Your task to perform on an android device: Search for the best rated desk chair on Article.com Image 0: 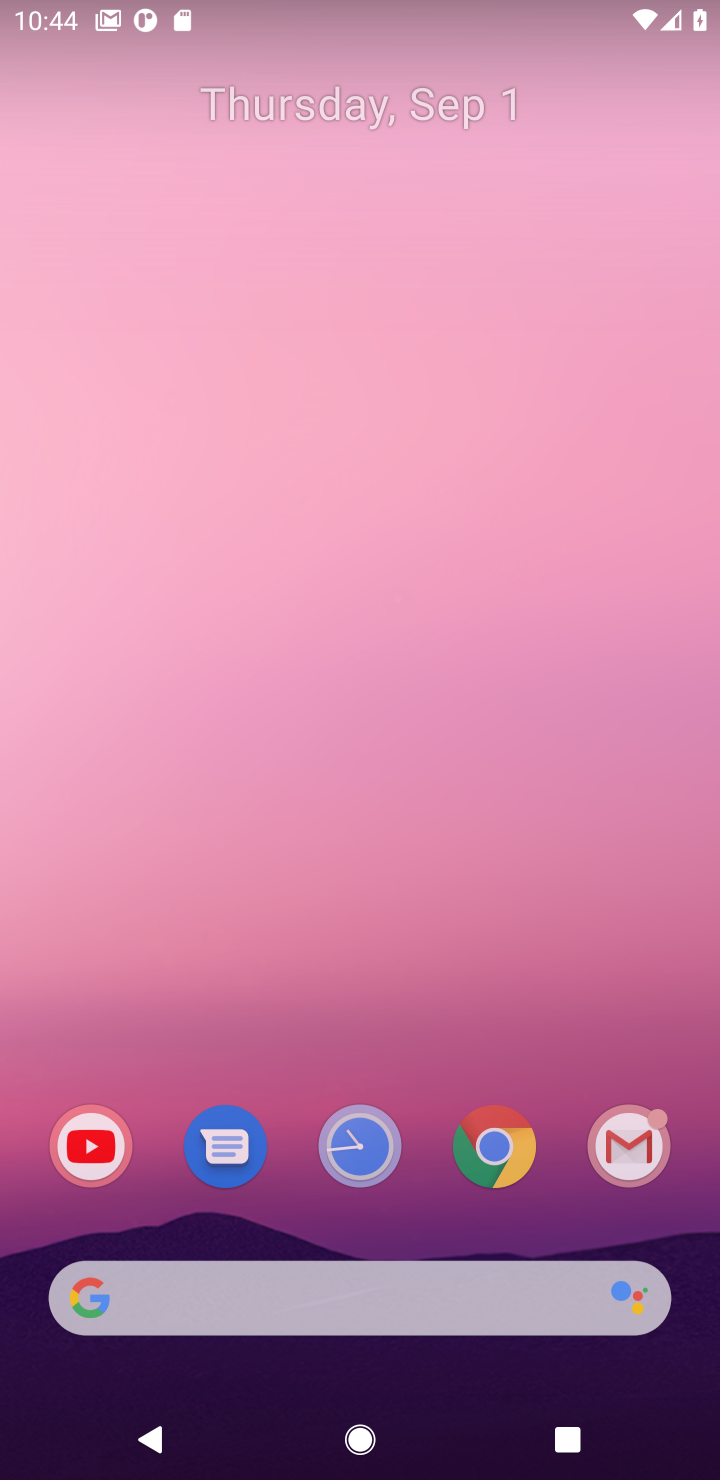
Step 0: press home button
Your task to perform on an android device: Search for the best rated desk chair on Article.com Image 1: 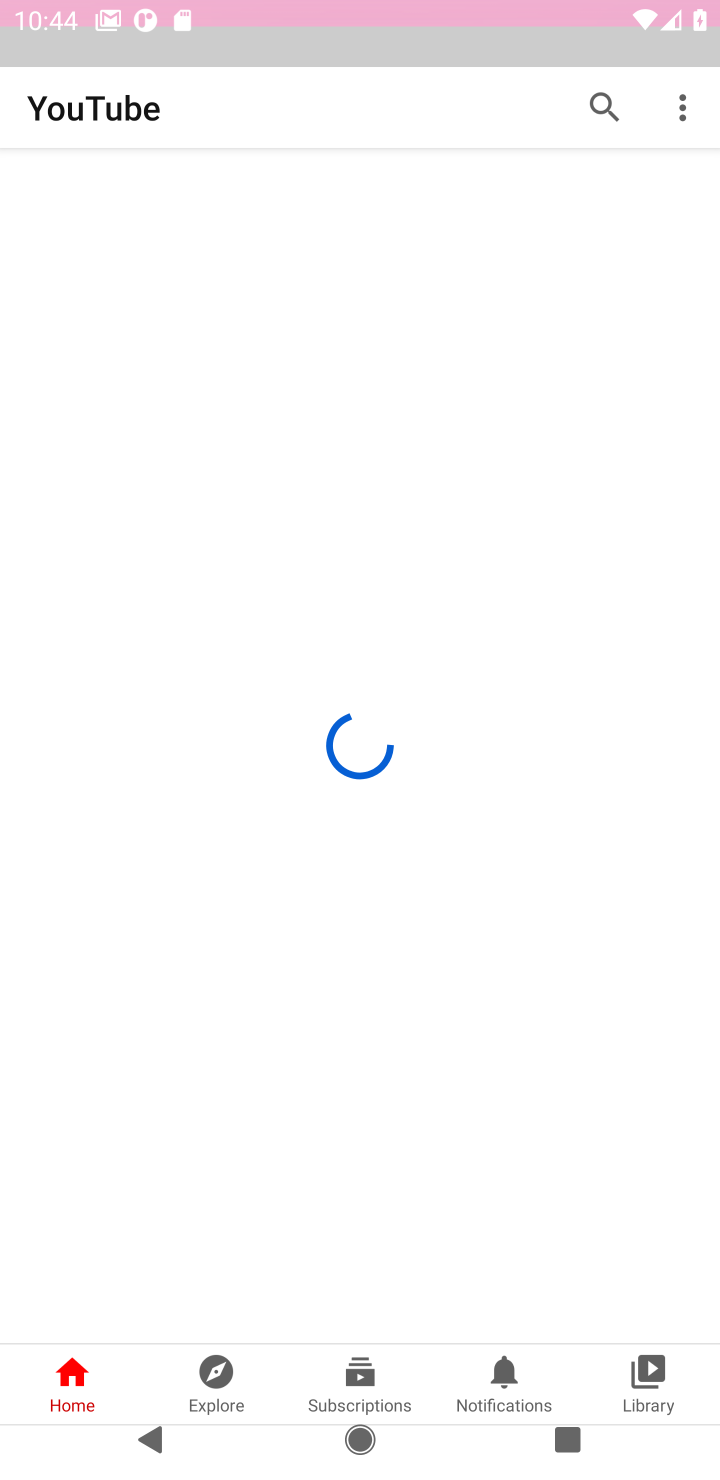
Step 1: drag from (437, 1205) to (501, 148)
Your task to perform on an android device: Search for the best rated desk chair on Article.com Image 2: 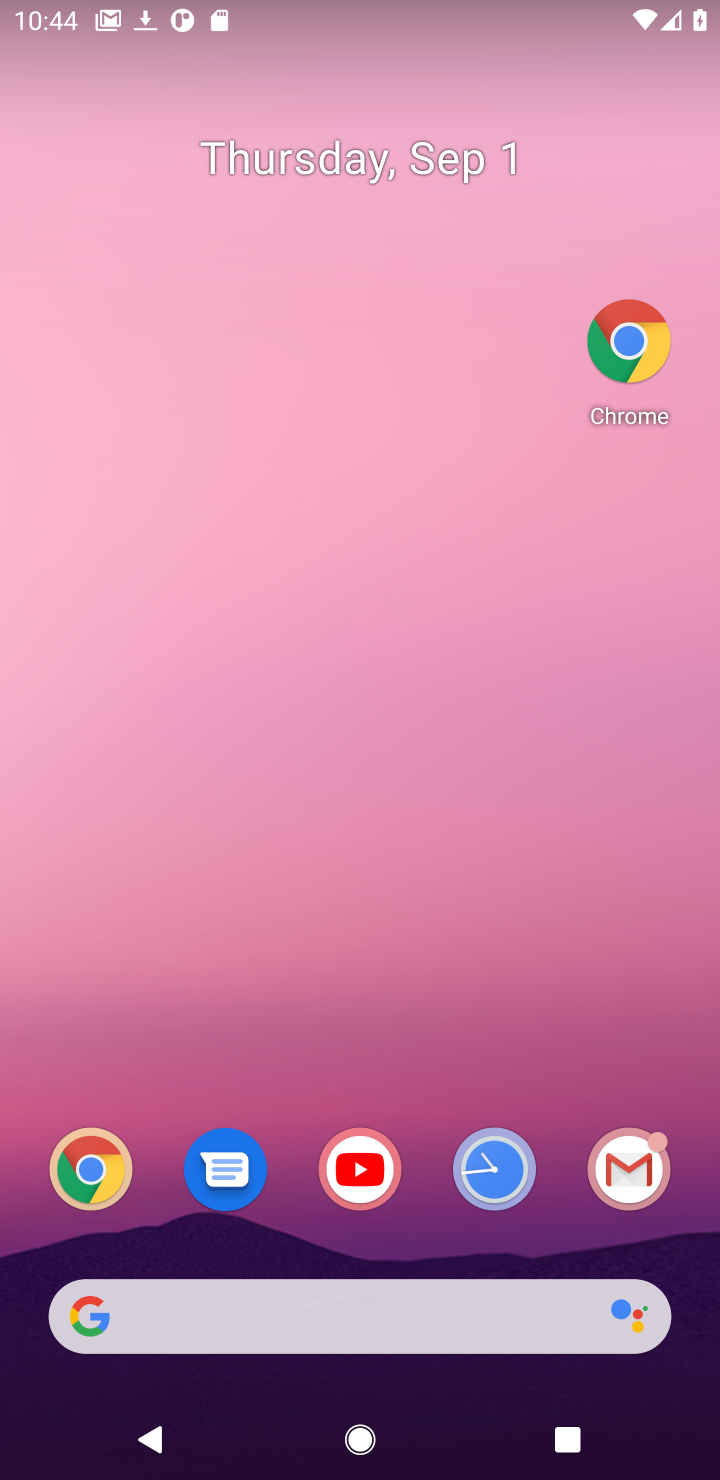
Step 2: drag from (419, 1197) to (482, 14)
Your task to perform on an android device: Search for the best rated desk chair on Article.com Image 3: 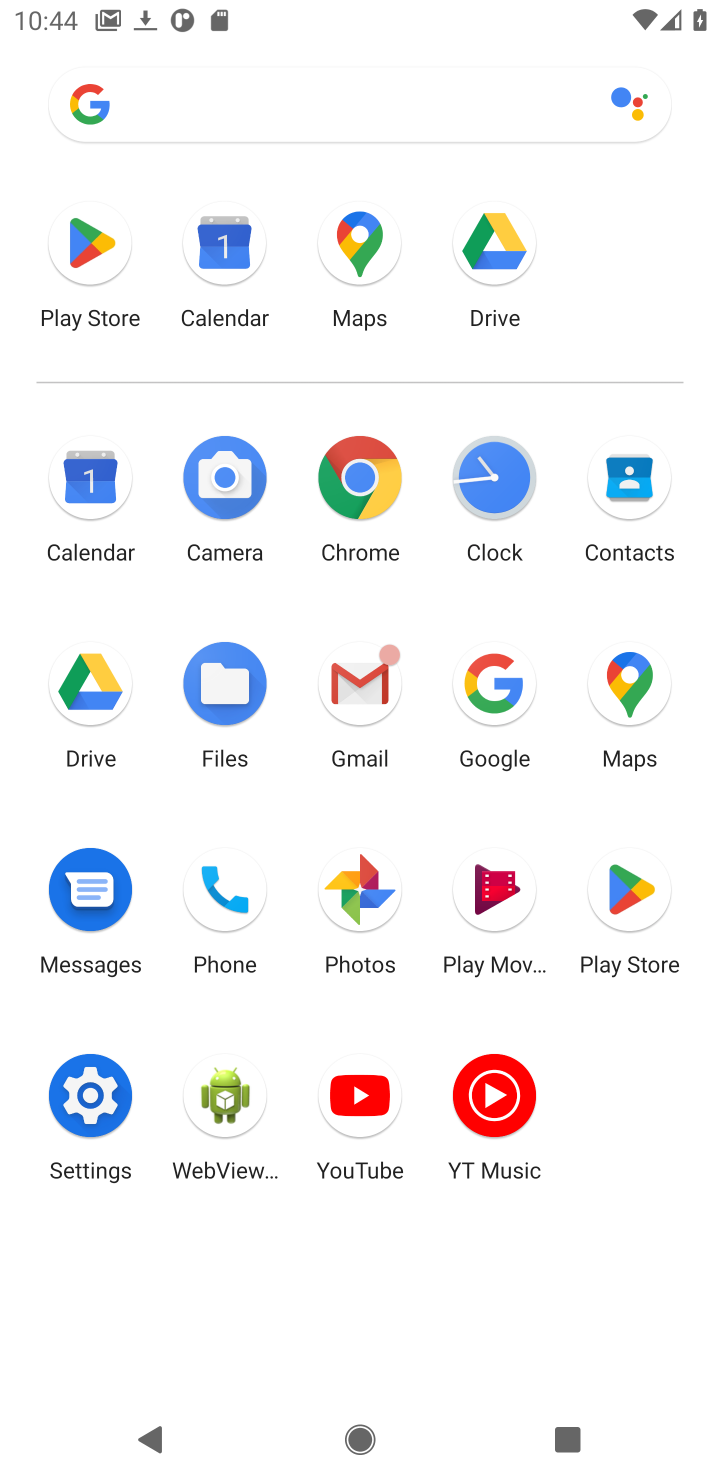
Step 3: click (354, 456)
Your task to perform on an android device: Search for the best rated desk chair on Article.com Image 4: 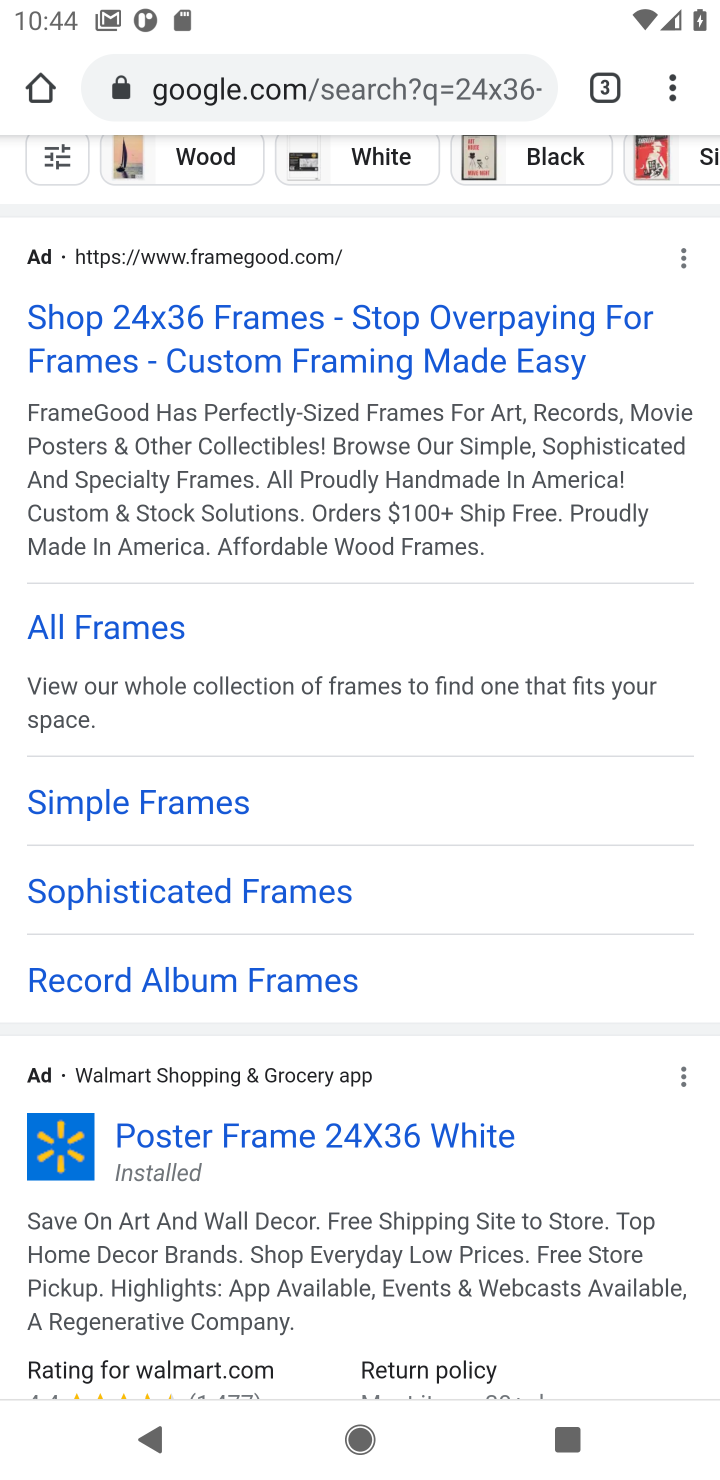
Step 4: click (277, 75)
Your task to perform on an android device: Search for the best rated desk chair on Article.com Image 5: 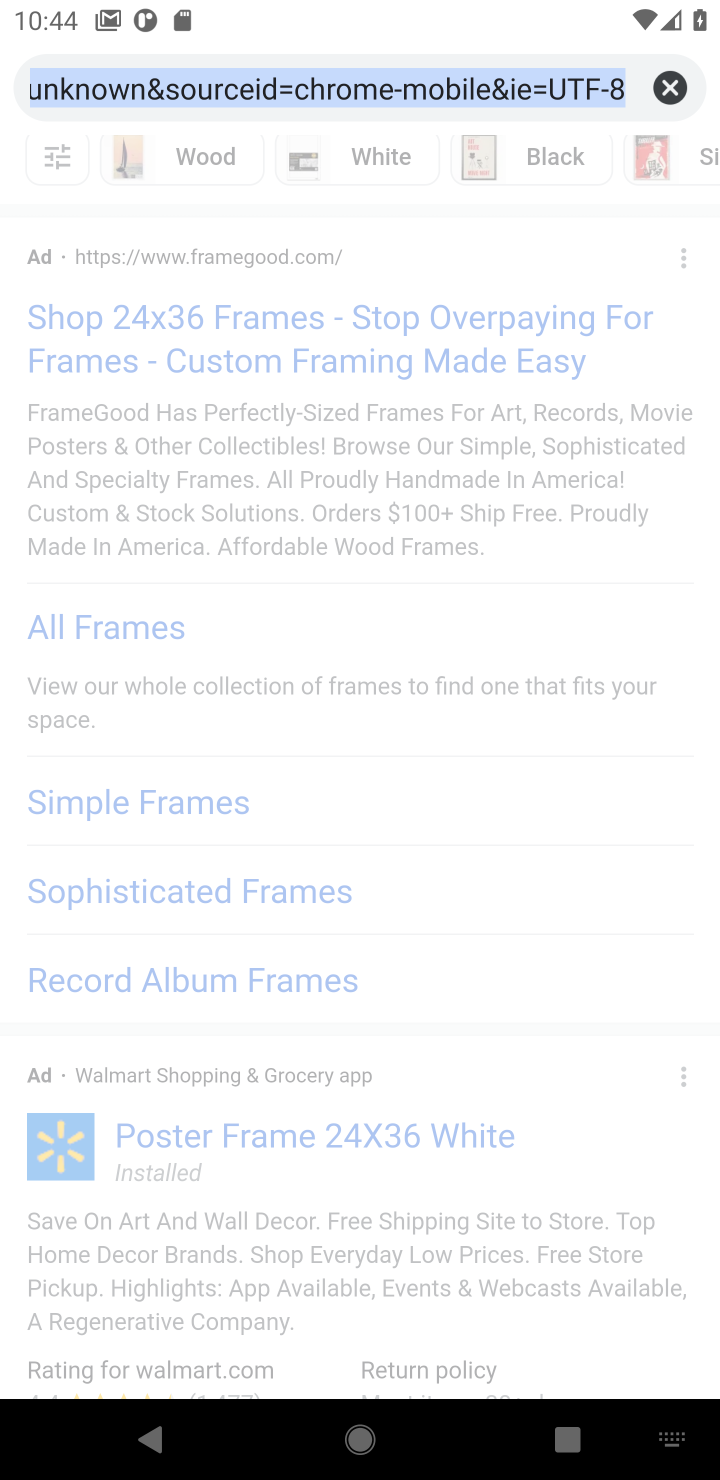
Step 5: type "best rated desk chair on Article.com"
Your task to perform on an android device: Search for the best rated desk chair on Article.com Image 6: 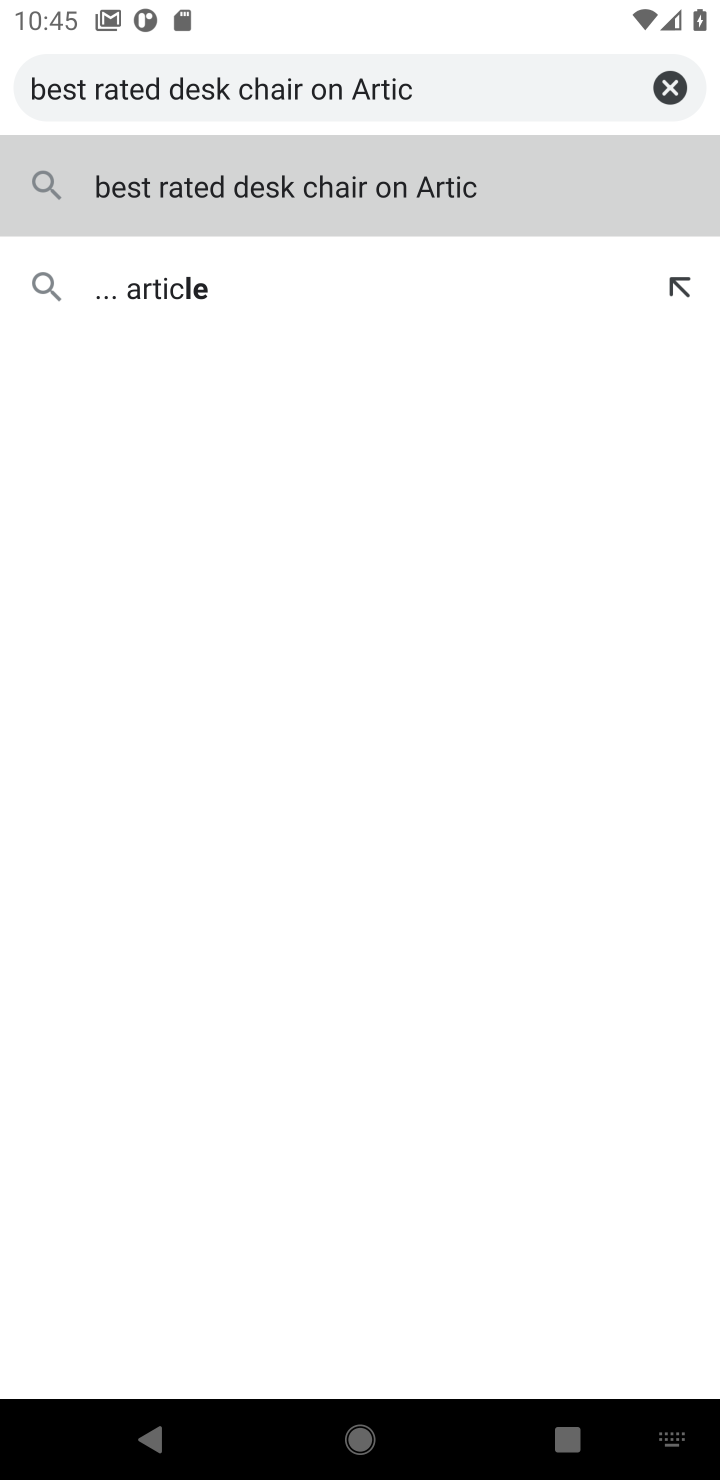
Step 6: type "le.com"
Your task to perform on an android device: Search for the best rated desk chair on Article.com Image 7: 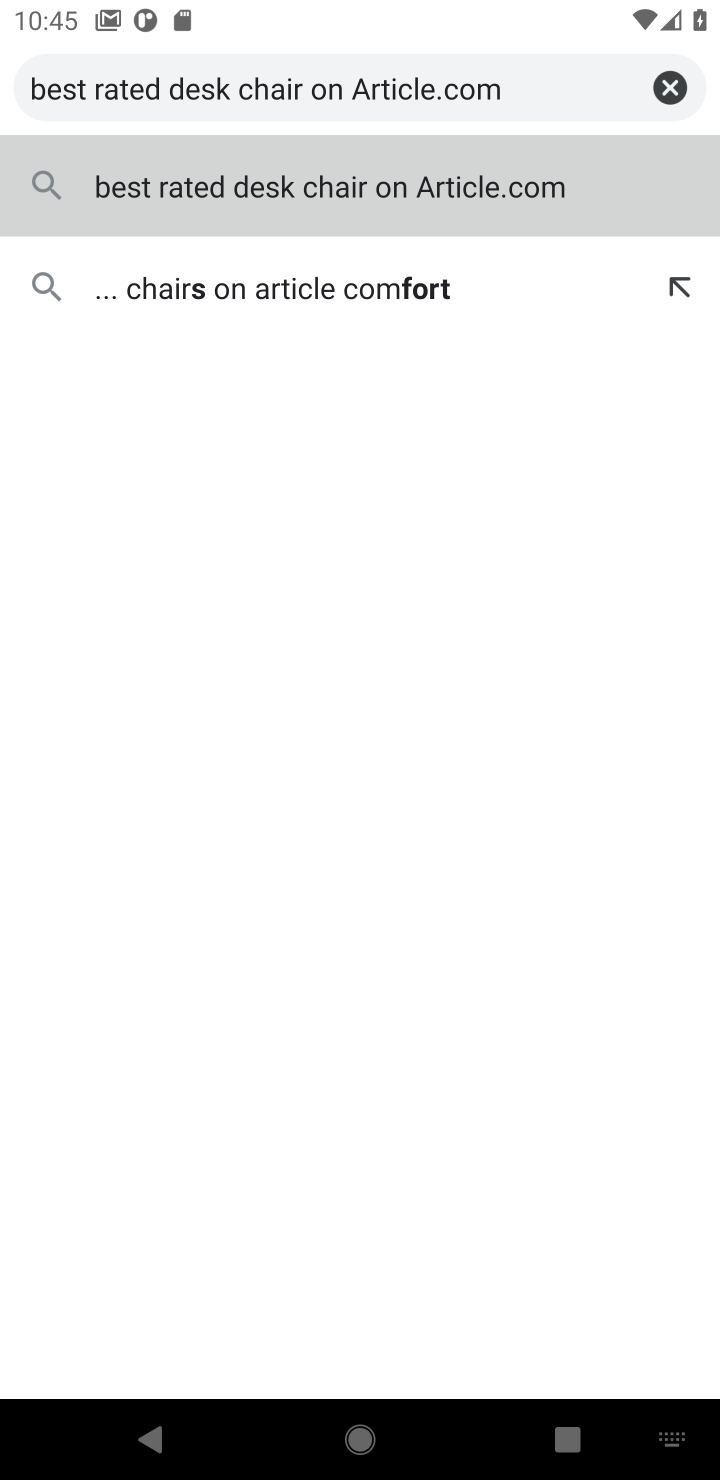
Step 7: click (267, 208)
Your task to perform on an android device: Search for the best rated desk chair on Article.com Image 8: 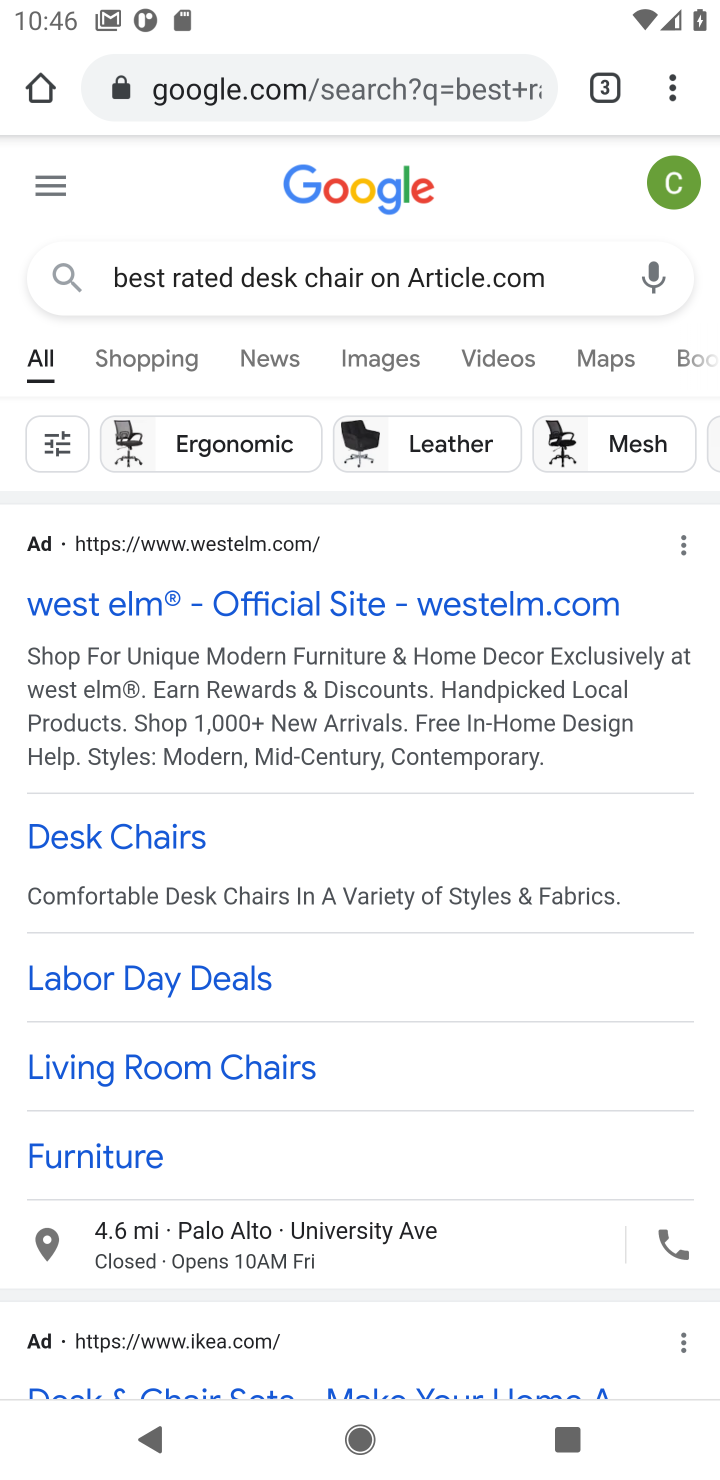
Step 8: drag from (334, 1133) to (393, 317)
Your task to perform on an android device: Search for the best rated desk chair on Article.com Image 9: 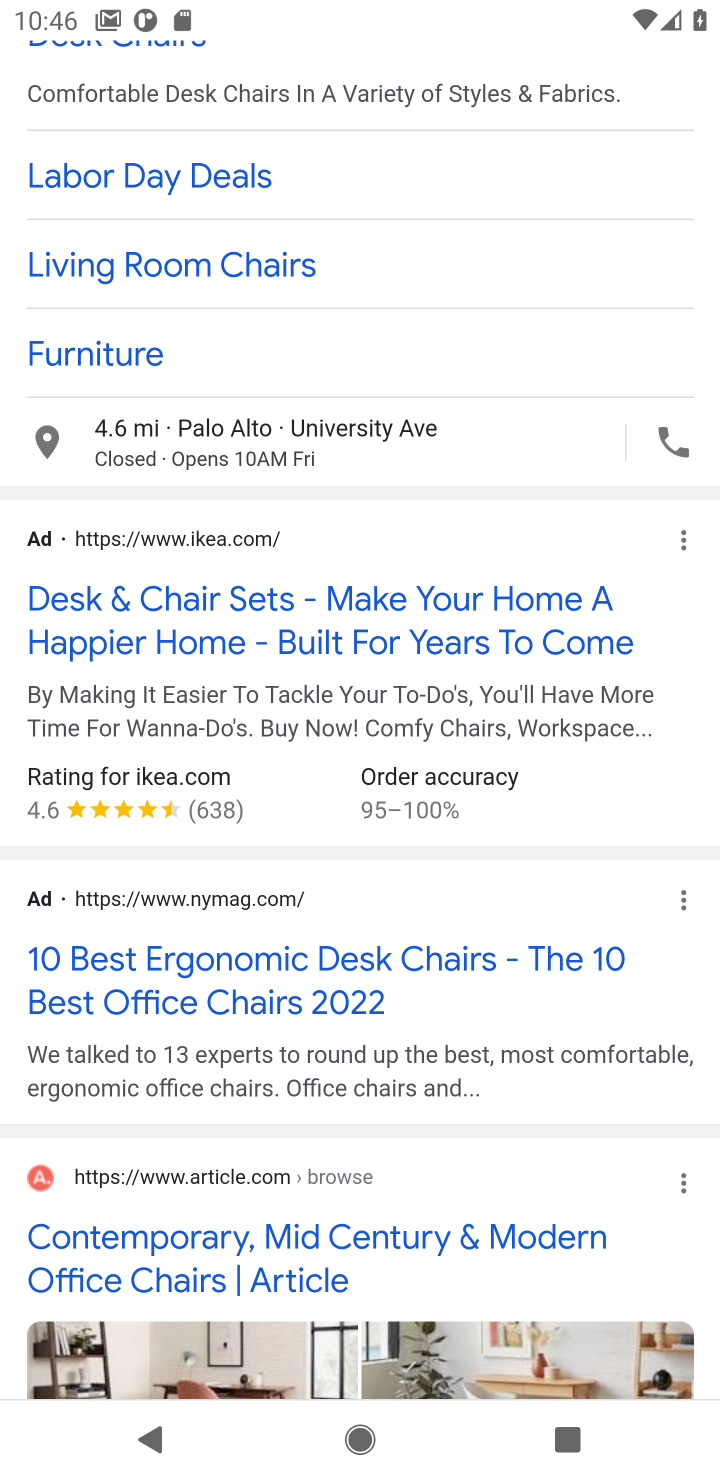
Step 9: drag from (438, 1185) to (460, 461)
Your task to perform on an android device: Search for the best rated desk chair on Article.com Image 10: 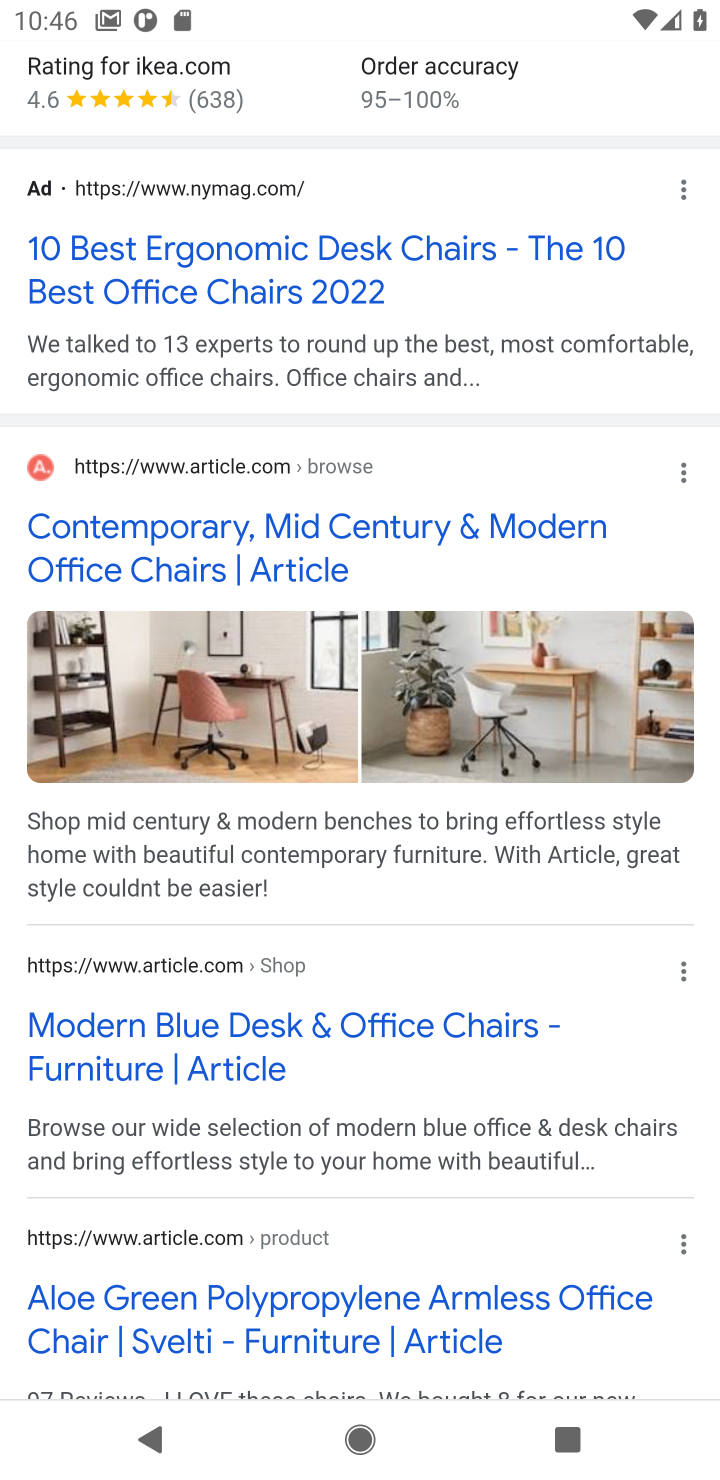
Step 10: click (244, 1031)
Your task to perform on an android device: Search for the best rated desk chair on Article.com Image 11: 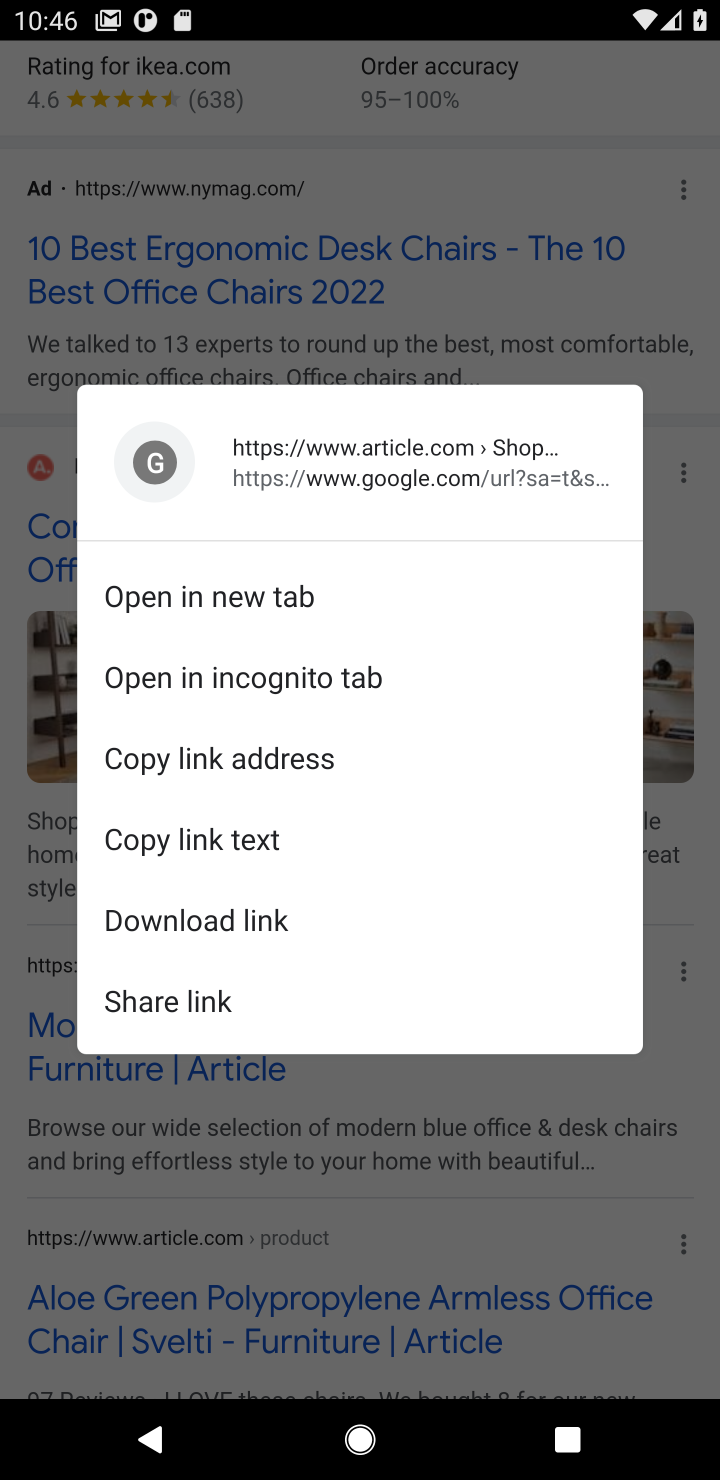
Step 11: click (127, 1149)
Your task to perform on an android device: Search for the best rated desk chair on Article.com Image 12: 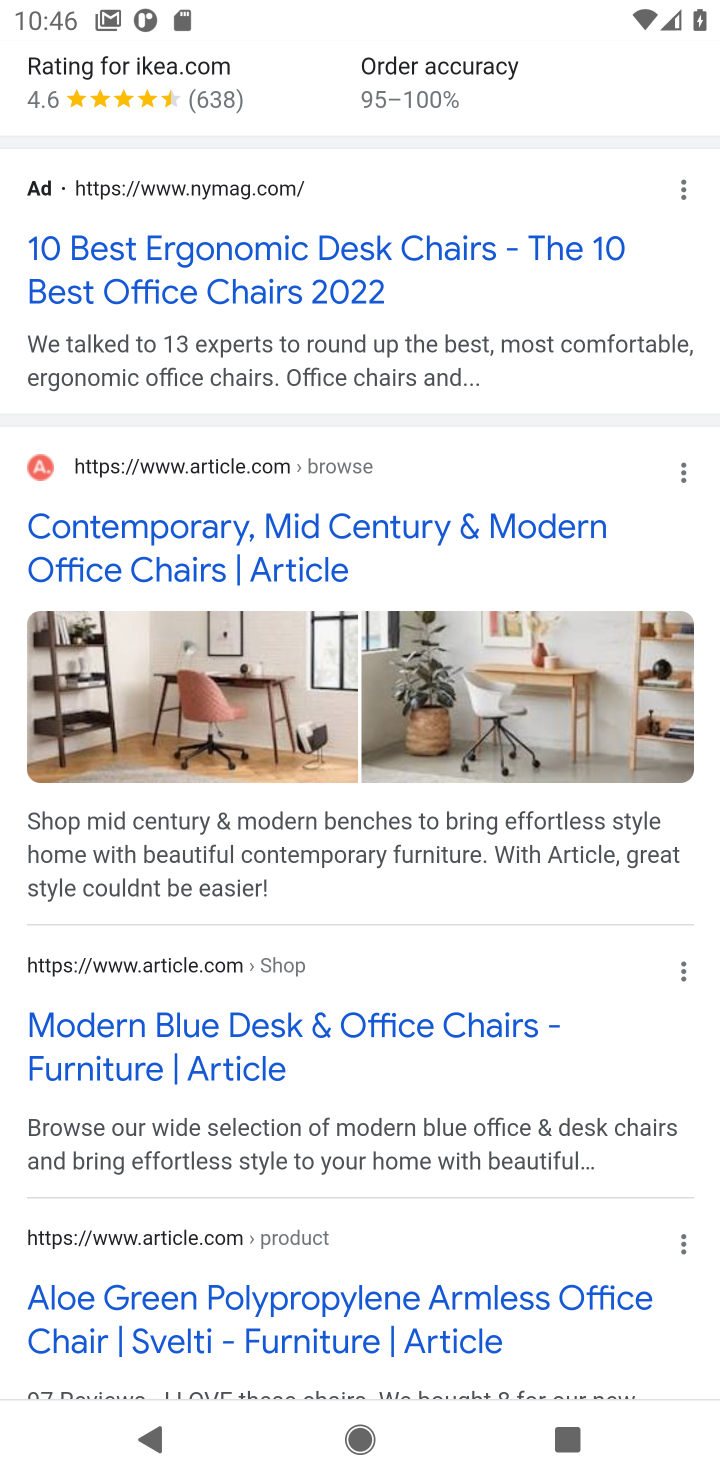
Step 12: click (118, 1036)
Your task to perform on an android device: Search for the best rated desk chair on Article.com Image 13: 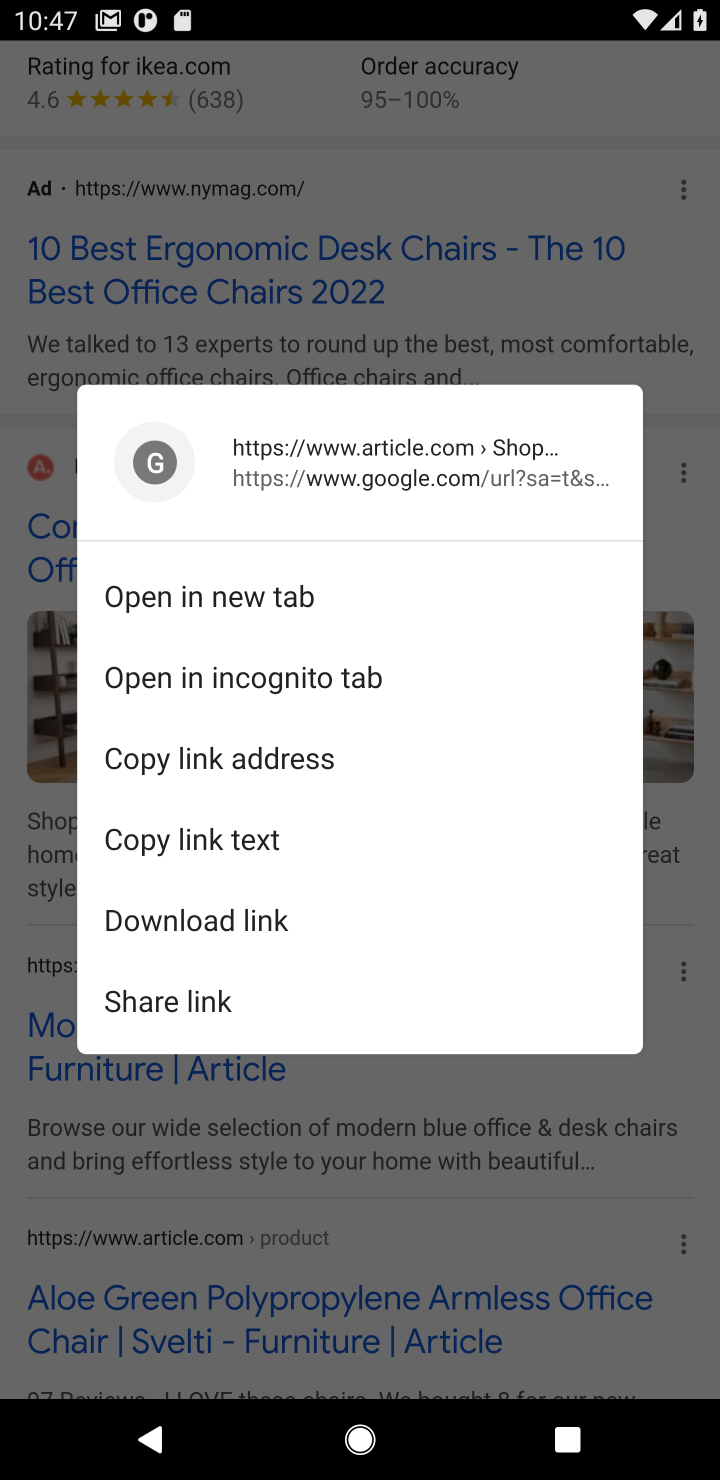
Step 13: click (31, 1066)
Your task to perform on an android device: Search for the best rated desk chair on Article.com Image 14: 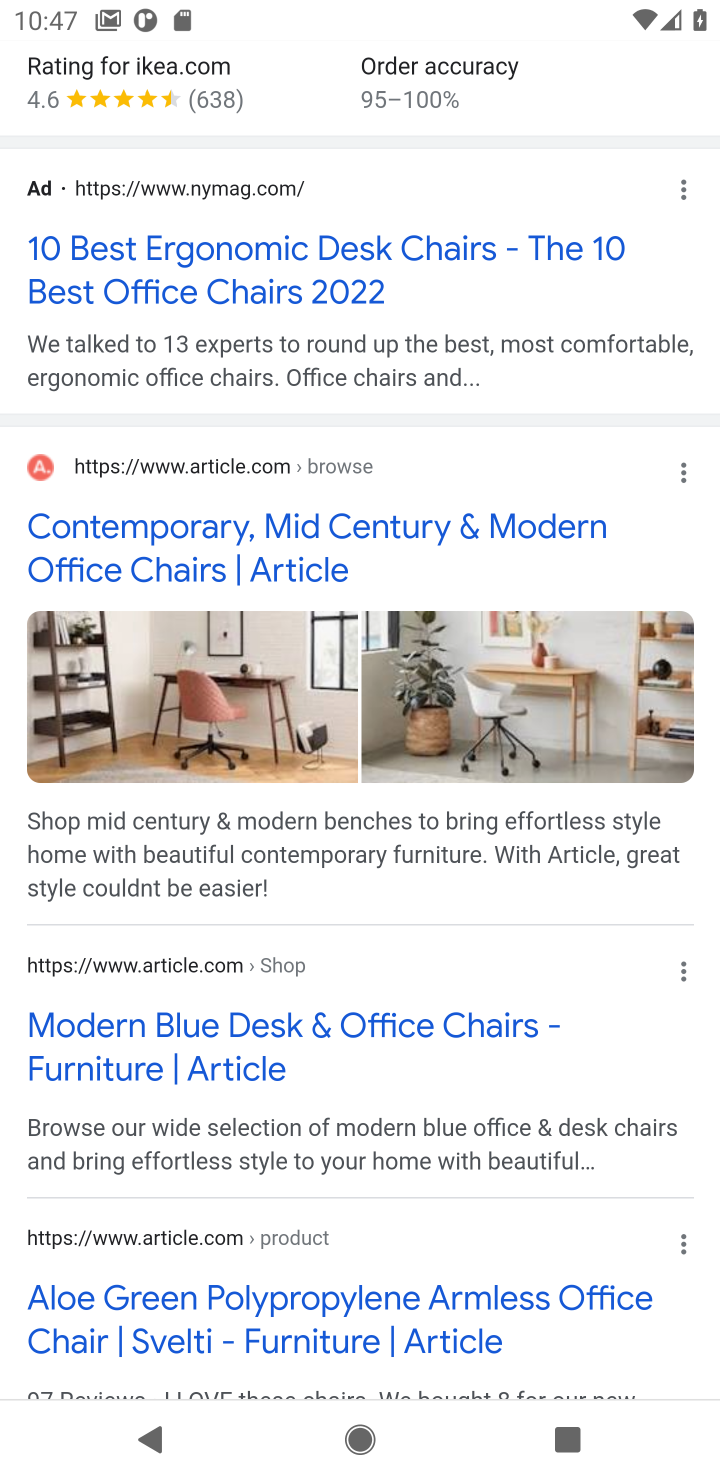
Step 14: click (270, 1026)
Your task to perform on an android device: Search for the best rated desk chair on Article.com Image 15: 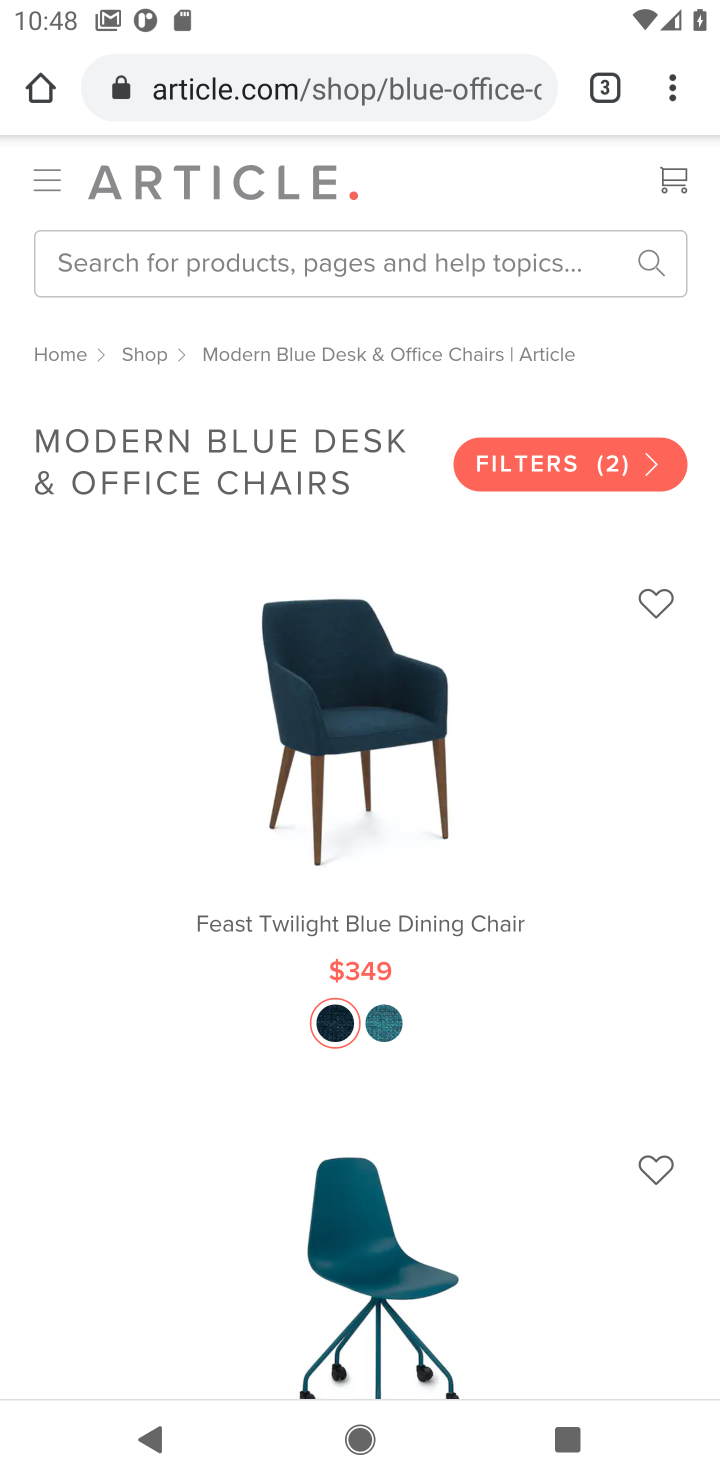
Step 15: drag from (272, 1134) to (360, 229)
Your task to perform on an android device: Search for the best rated desk chair on Article.com Image 16: 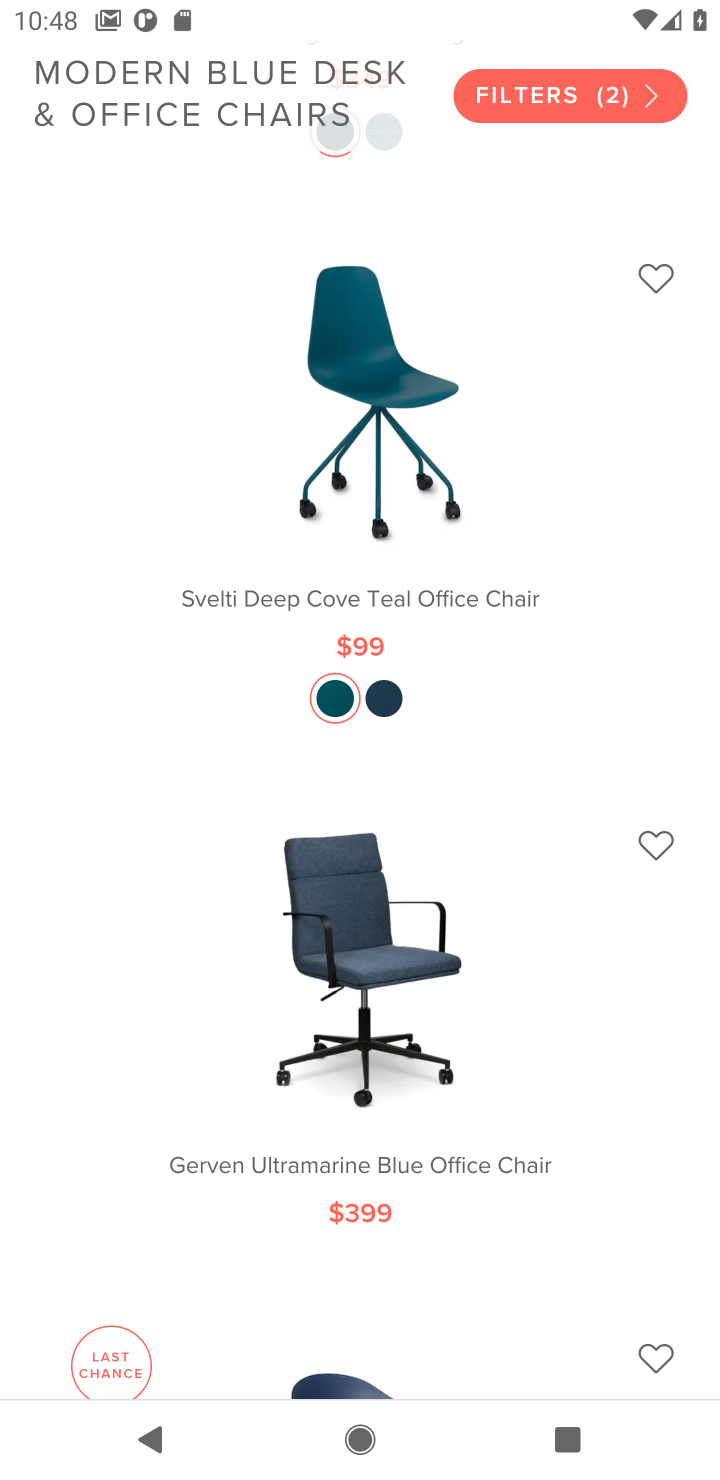
Step 16: drag from (483, 1166) to (532, 112)
Your task to perform on an android device: Search for the best rated desk chair on Article.com Image 17: 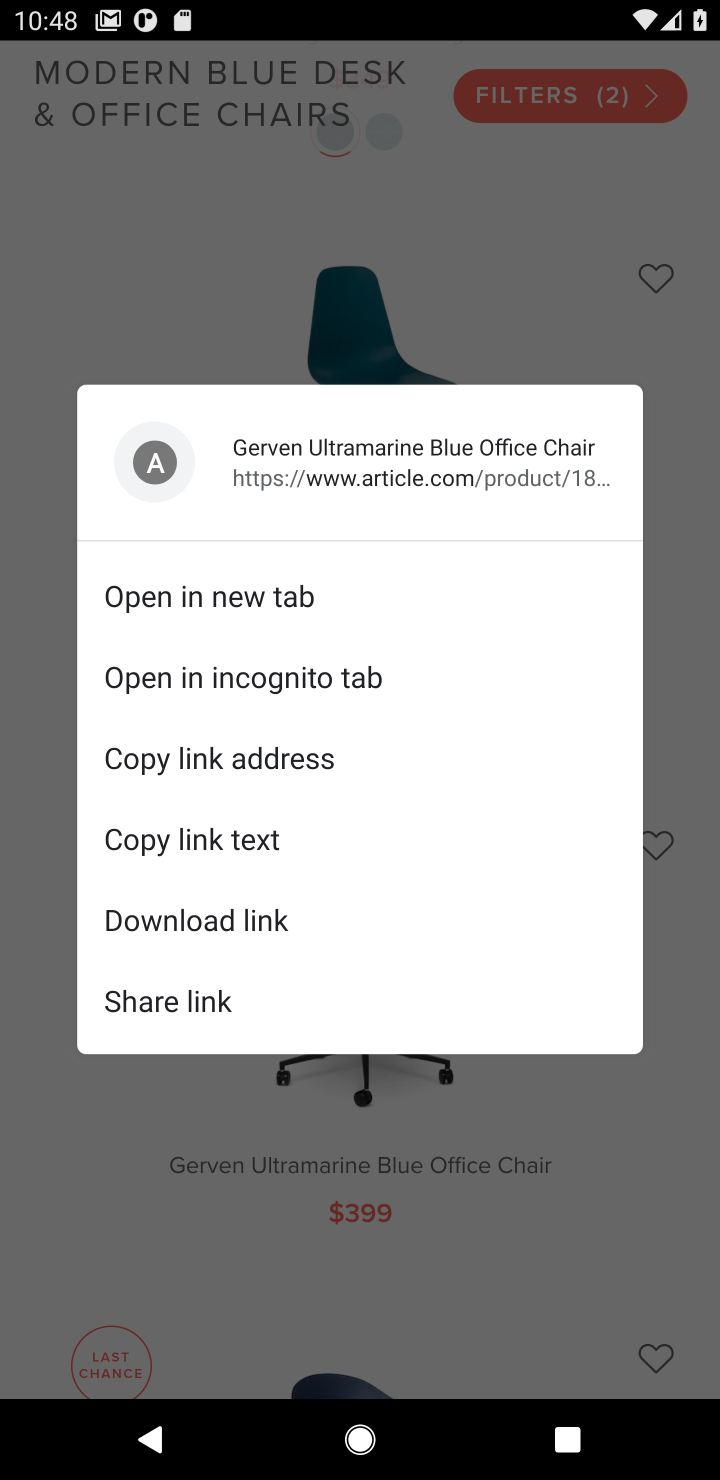
Step 17: click (449, 1184)
Your task to perform on an android device: Search for the best rated desk chair on Article.com Image 18: 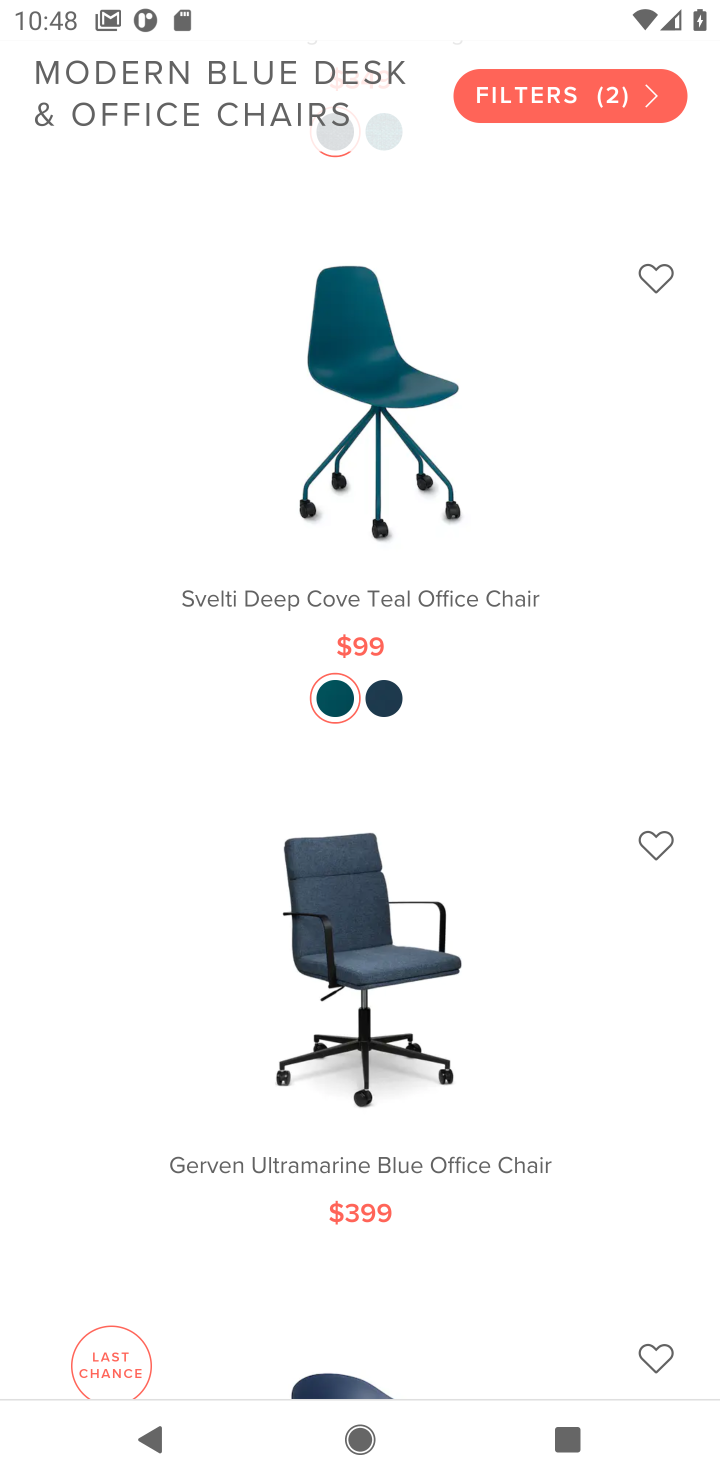
Step 18: task complete